Your task to perform on an android device: add a label to a message in the gmail app Image 0: 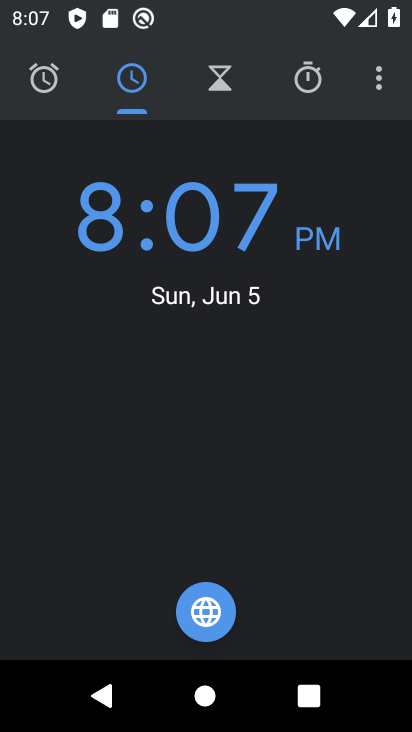
Step 0: press back button
Your task to perform on an android device: add a label to a message in the gmail app Image 1: 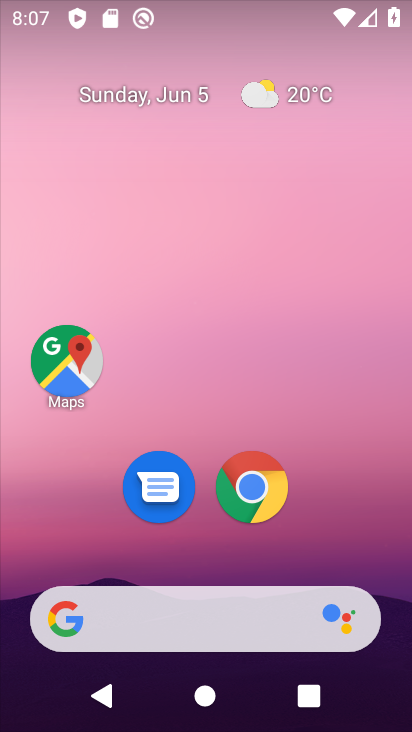
Step 1: drag from (205, 558) to (269, 6)
Your task to perform on an android device: add a label to a message in the gmail app Image 2: 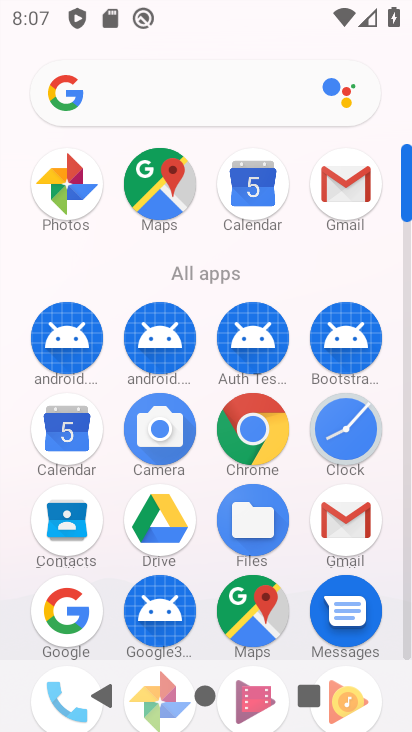
Step 2: click (352, 197)
Your task to perform on an android device: add a label to a message in the gmail app Image 3: 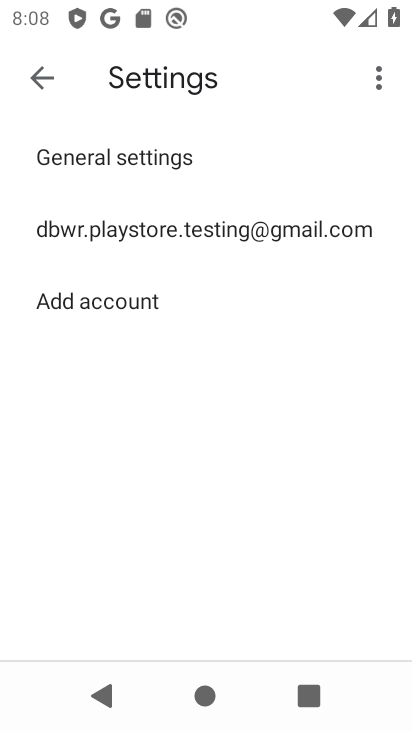
Step 3: click (200, 241)
Your task to perform on an android device: add a label to a message in the gmail app Image 4: 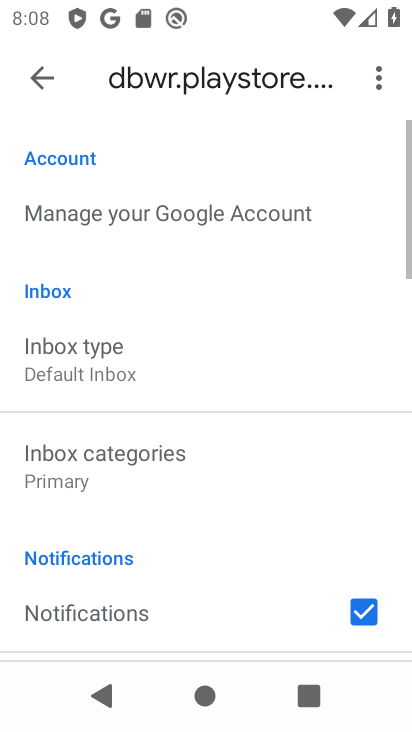
Step 4: click (45, 73)
Your task to perform on an android device: add a label to a message in the gmail app Image 5: 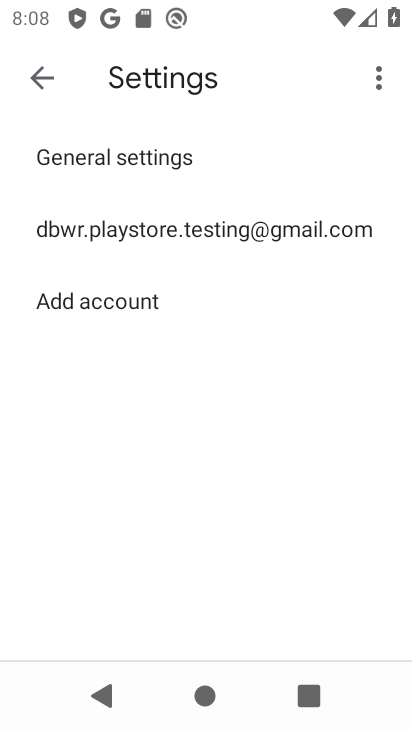
Step 5: click (45, 73)
Your task to perform on an android device: add a label to a message in the gmail app Image 6: 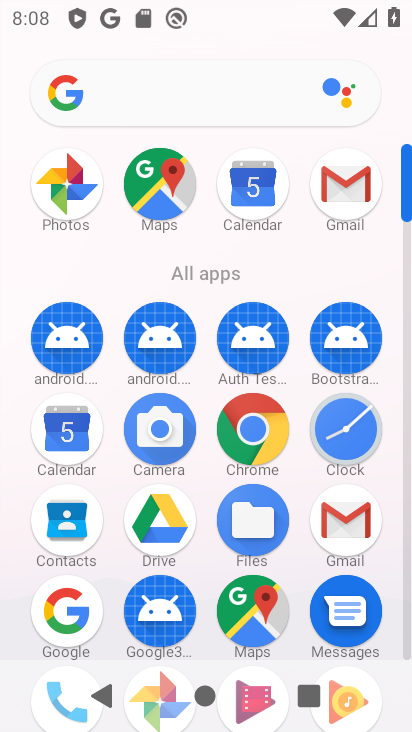
Step 6: click (352, 201)
Your task to perform on an android device: add a label to a message in the gmail app Image 7: 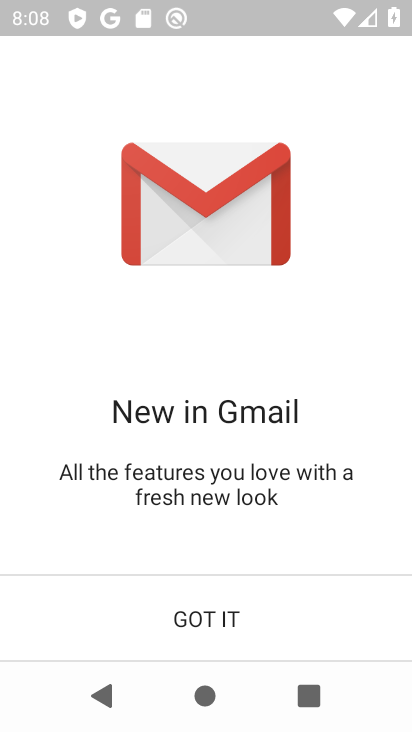
Step 7: click (236, 638)
Your task to perform on an android device: add a label to a message in the gmail app Image 8: 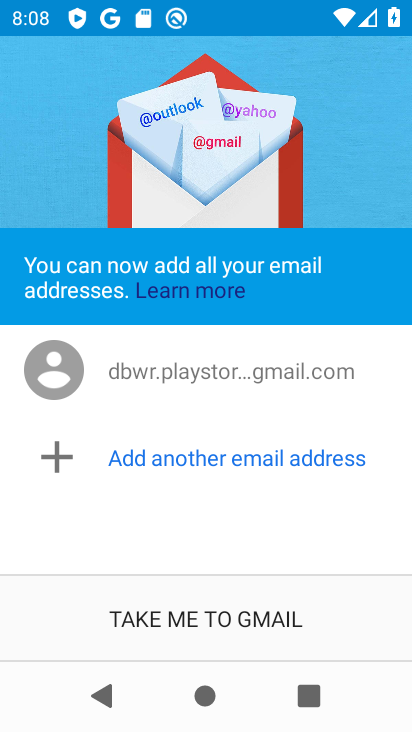
Step 8: click (183, 616)
Your task to perform on an android device: add a label to a message in the gmail app Image 9: 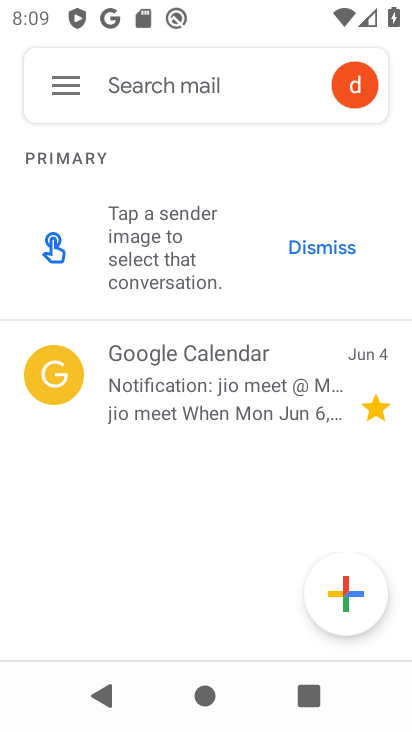
Step 9: click (158, 399)
Your task to perform on an android device: add a label to a message in the gmail app Image 10: 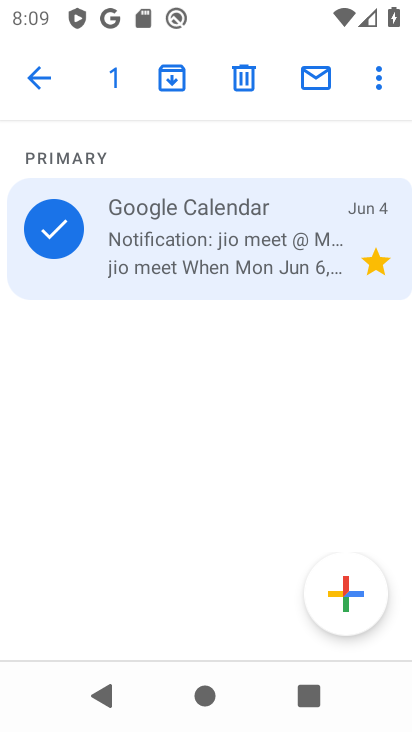
Step 10: click (391, 75)
Your task to perform on an android device: add a label to a message in the gmail app Image 11: 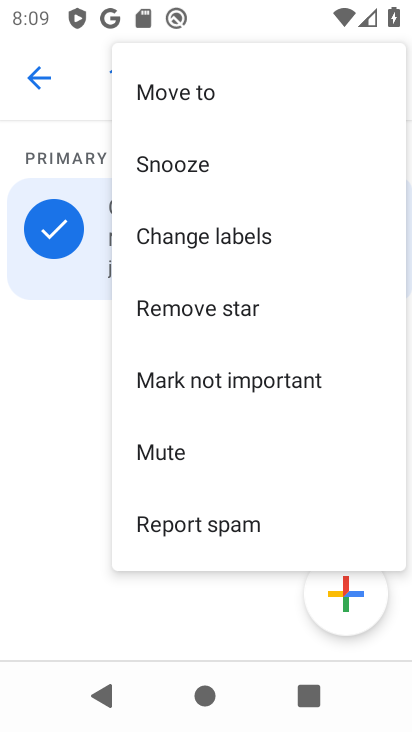
Step 11: click (241, 231)
Your task to perform on an android device: add a label to a message in the gmail app Image 12: 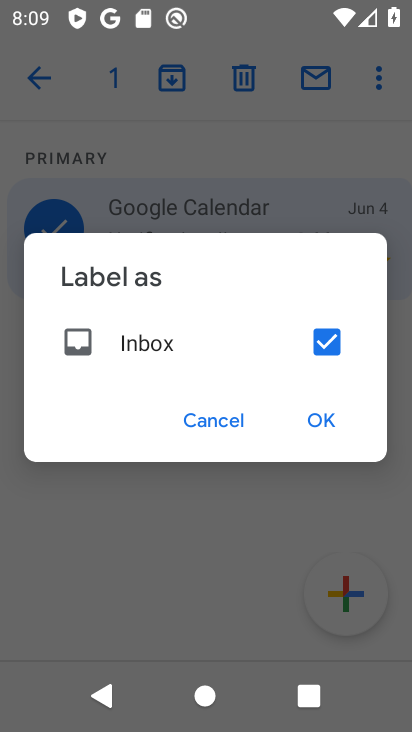
Step 12: click (311, 421)
Your task to perform on an android device: add a label to a message in the gmail app Image 13: 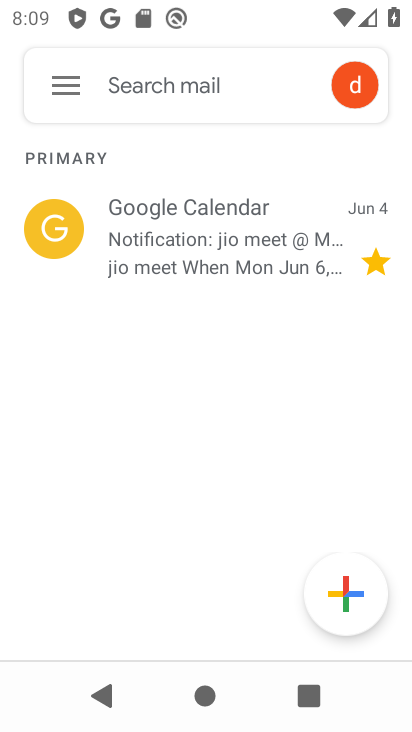
Step 13: task complete